Your task to perform on an android device: Go to internet settings Image 0: 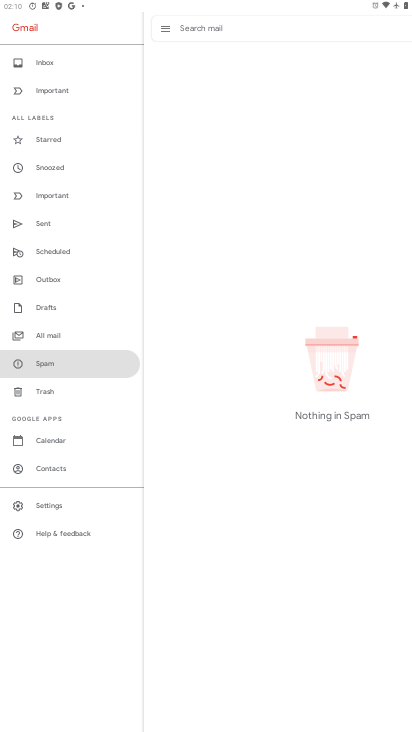
Step 0: press home button
Your task to perform on an android device: Go to internet settings Image 1: 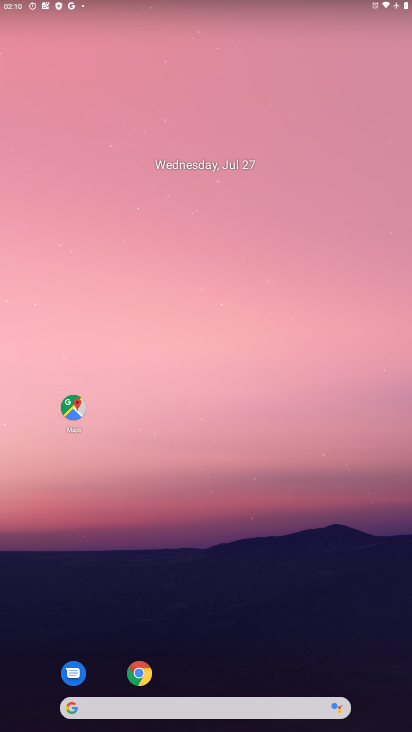
Step 1: drag from (211, 660) to (243, 11)
Your task to perform on an android device: Go to internet settings Image 2: 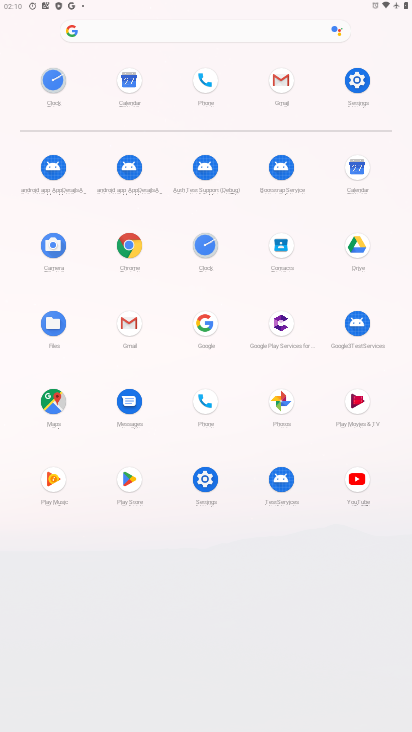
Step 2: click (359, 86)
Your task to perform on an android device: Go to internet settings Image 3: 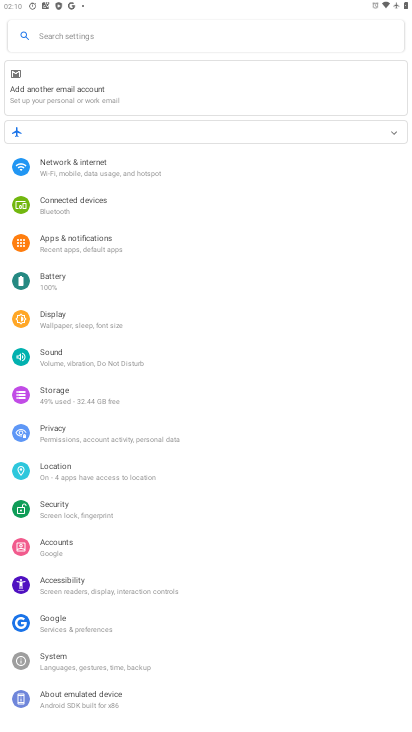
Step 3: click (68, 171)
Your task to perform on an android device: Go to internet settings Image 4: 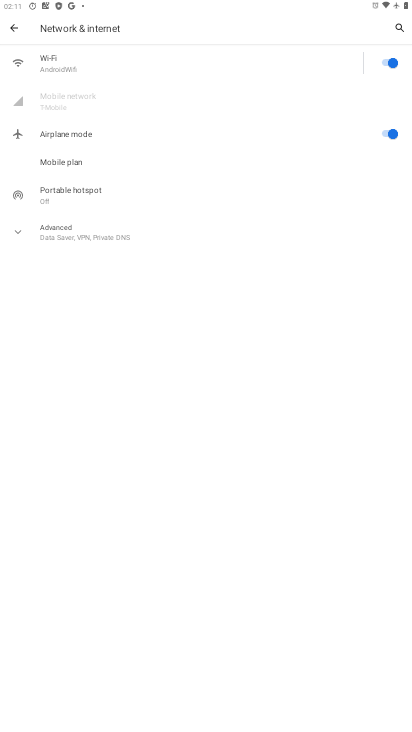
Step 4: click (17, 245)
Your task to perform on an android device: Go to internet settings Image 5: 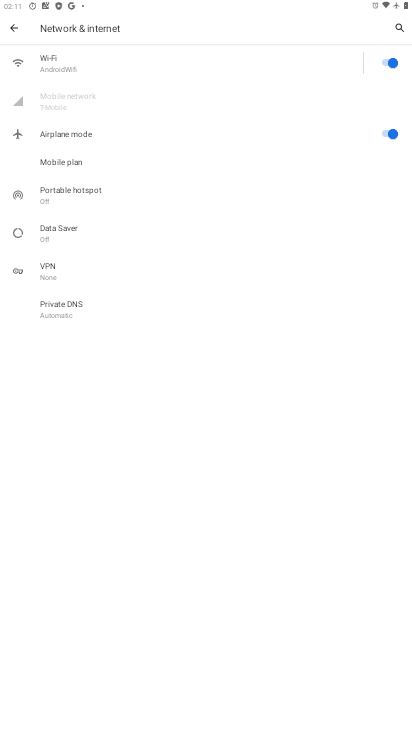
Step 5: task complete